Your task to perform on an android device: Open eBay Image 0: 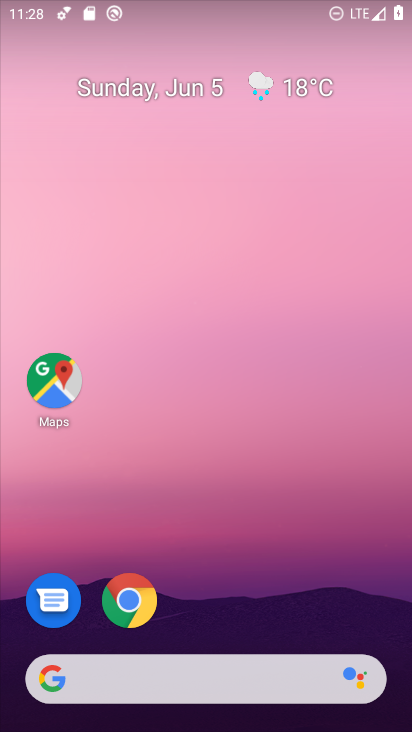
Step 0: click (119, 619)
Your task to perform on an android device: Open eBay Image 1: 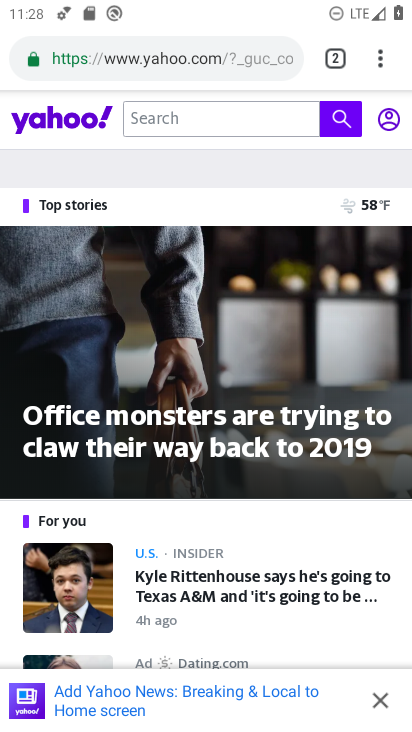
Step 1: click (327, 50)
Your task to perform on an android device: Open eBay Image 2: 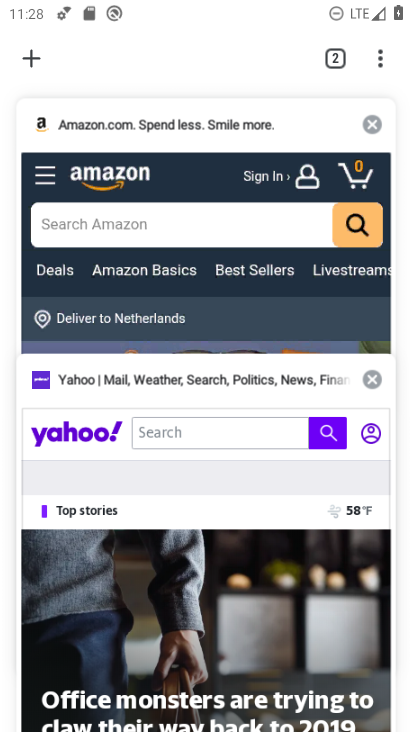
Step 2: click (34, 44)
Your task to perform on an android device: Open eBay Image 3: 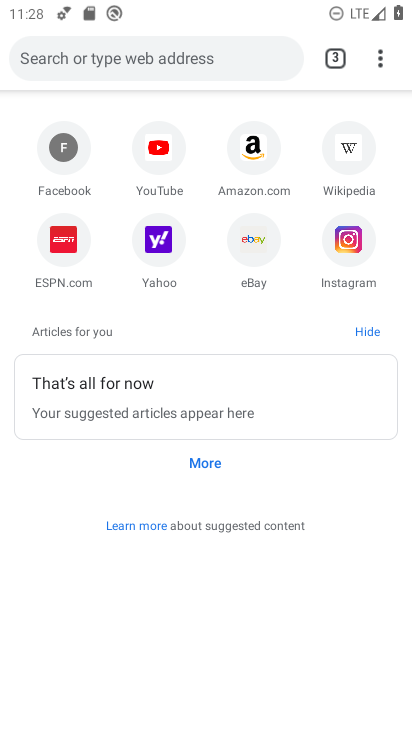
Step 3: click (254, 257)
Your task to perform on an android device: Open eBay Image 4: 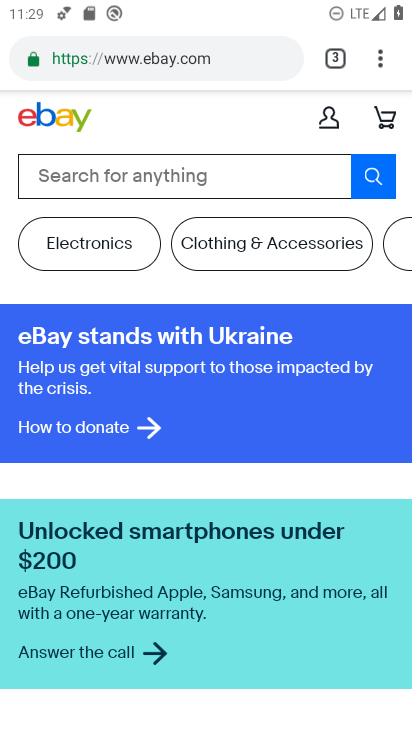
Step 4: task complete